Your task to perform on an android device: See recent photos Image 0: 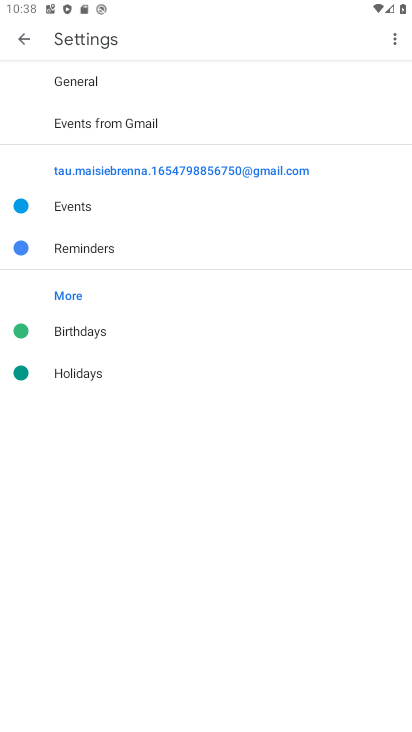
Step 0: press home button
Your task to perform on an android device: See recent photos Image 1: 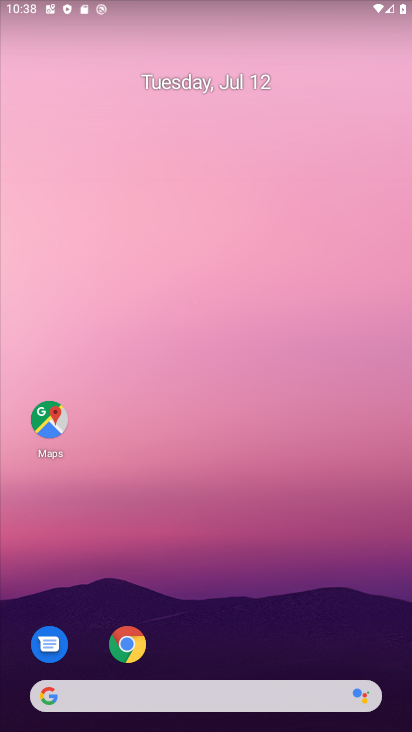
Step 1: drag from (229, 670) to (54, 25)
Your task to perform on an android device: See recent photos Image 2: 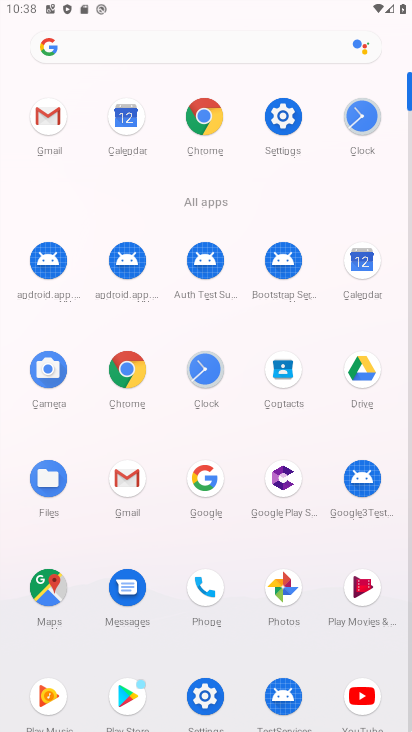
Step 2: click (283, 583)
Your task to perform on an android device: See recent photos Image 3: 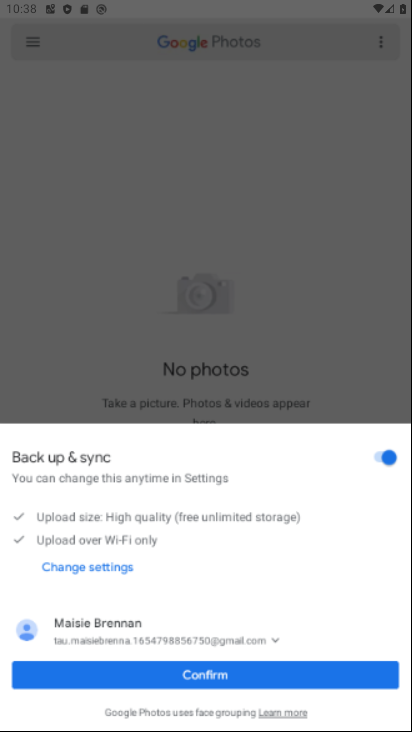
Step 3: click (286, 672)
Your task to perform on an android device: See recent photos Image 4: 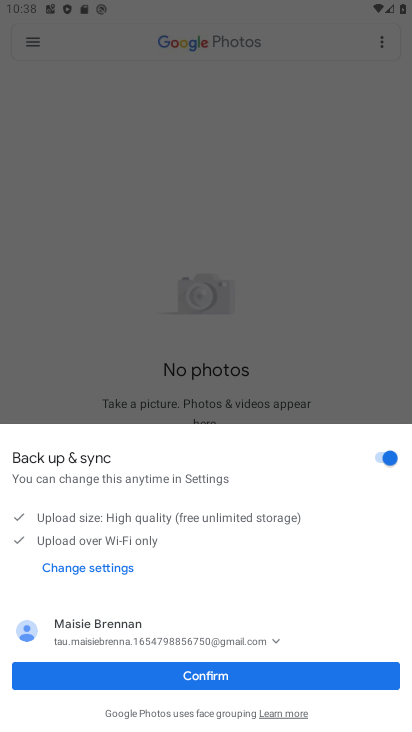
Step 4: click (285, 674)
Your task to perform on an android device: See recent photos Image 5: 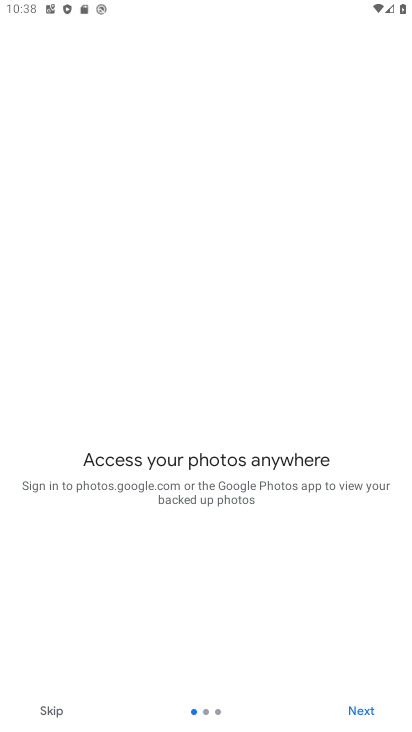
Step 5: click (62, 712)
Your task to perform on an android device: See recent photos Image 6: 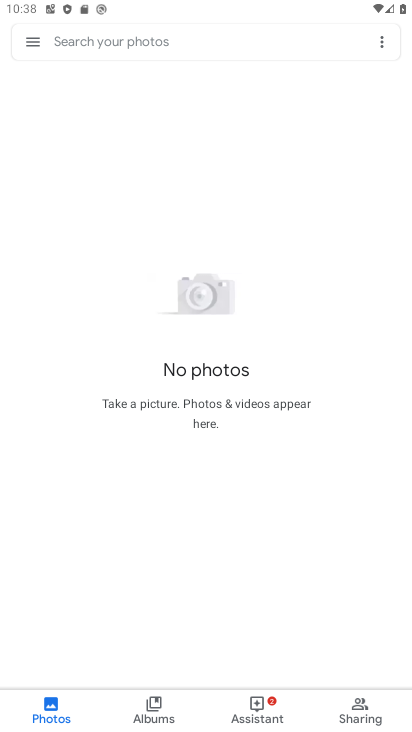
Step 6: click (234, 35)
Your task to perform on an android device: See recent photos Image 7: 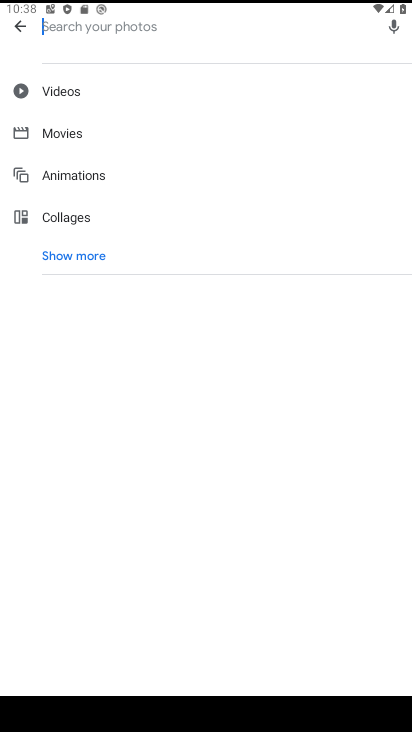
Step 7: task complete